Your task to perform on an android device: Open Wikipedia Image 0: 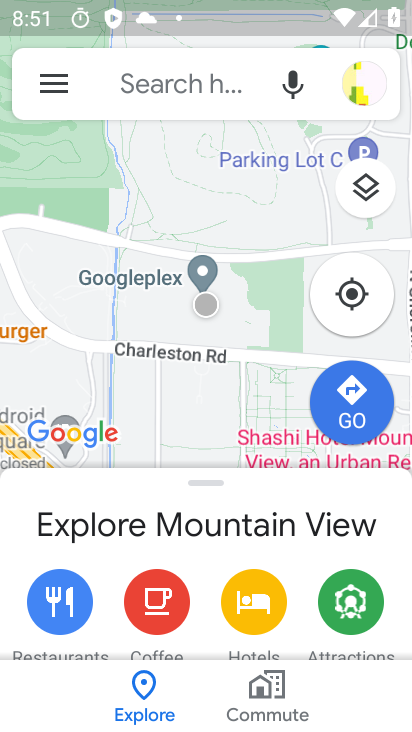
Step 0: press home button
Your task to perform on an android device: Open Wikipedia Image 1: 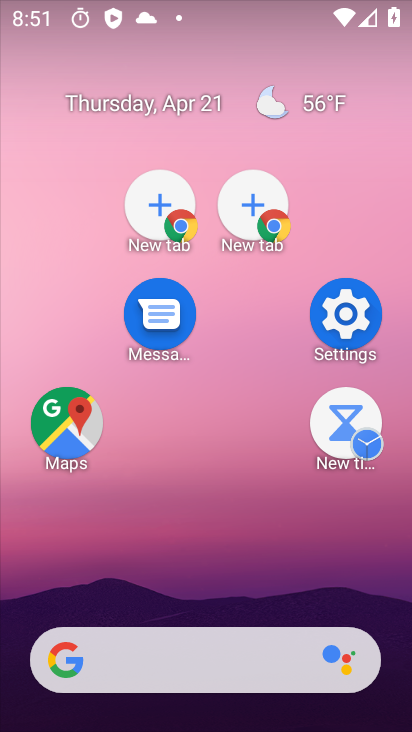
Step 1: drag from (245, 262) to (221, 81)
Your task to perform on an android device: Open Wikipedia Image 2: 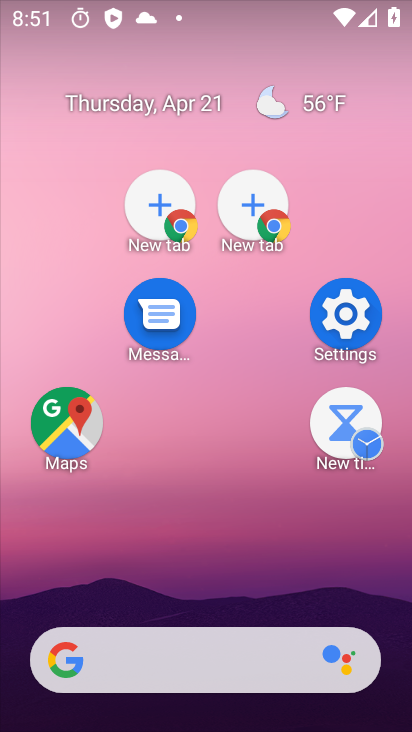
Step 2: drag from (289, 557) to (170, 24)
Your task to perform on an android device: Open Wikipedia Image 3: 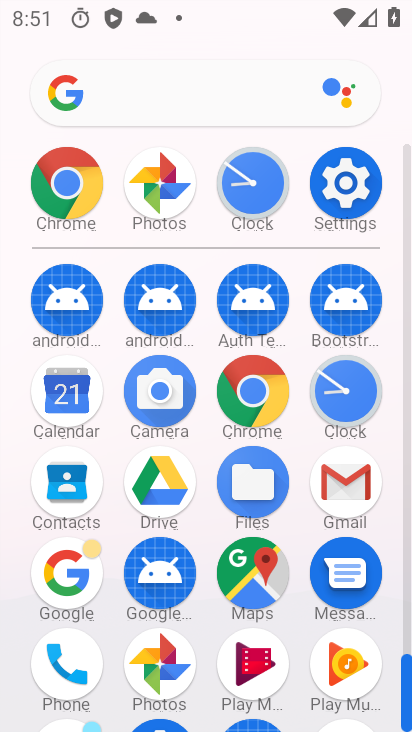
Step 3: click (73, 187)
Your task to perform on an android device: Open Wikipedia Image 4: 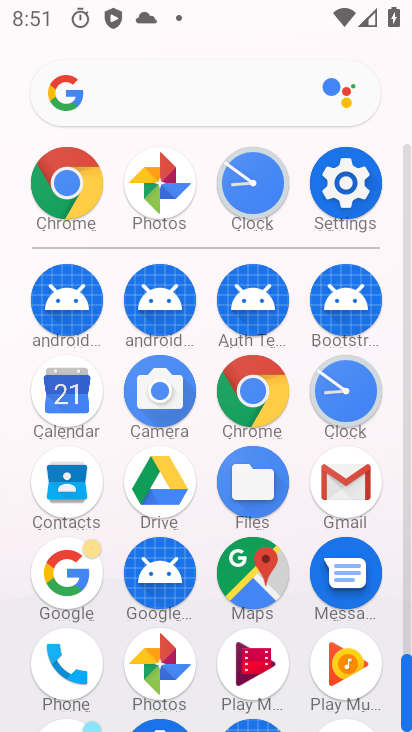
Step 4: click (65, 182)
Your task to perform on an android device: Open Wikipedia Image 5: 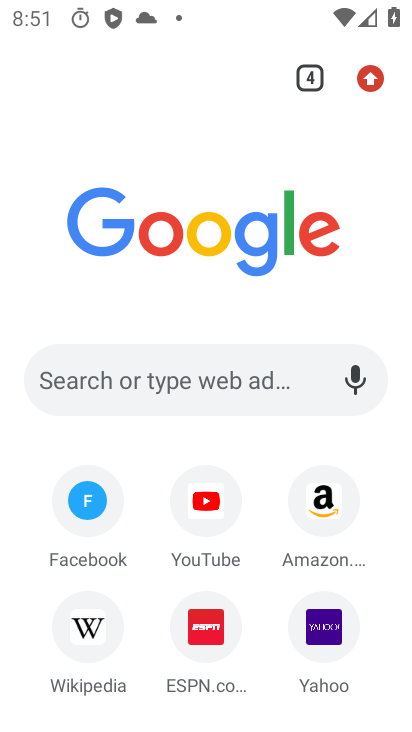
Step 5: drag from (88, 635) to (50, 614)
Your task to perform on an android device: Open Wikipedia Image 6: 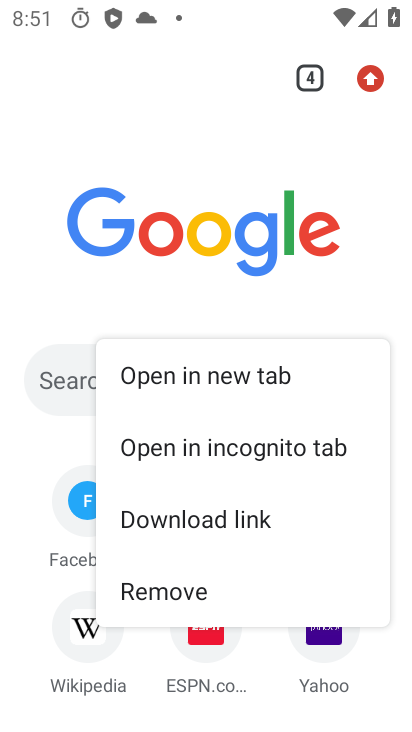
Step 6: click (80, 633)
Your task to perform on an android device: Open Wikipedia Image 7: 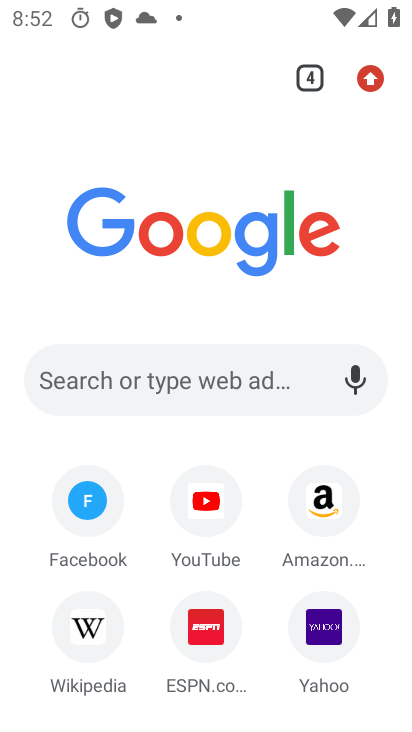
Step 7: click (80, 633)
Your task to perform on an android device: Open Wikipedia Image 8: 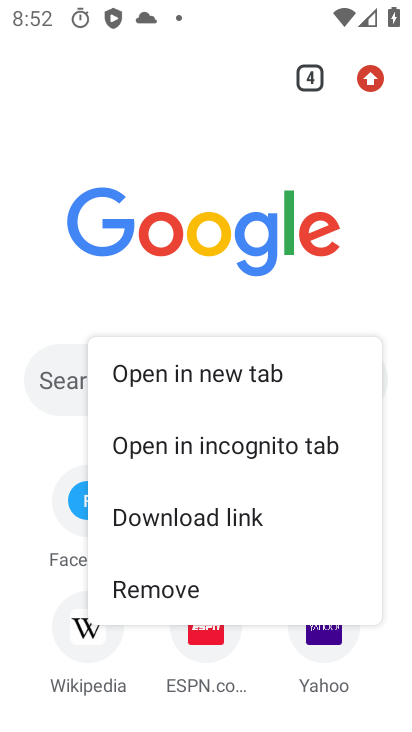
Step 8: click (80, 624)
Your task to perform on an android device: Open Wikipedia Image 9: 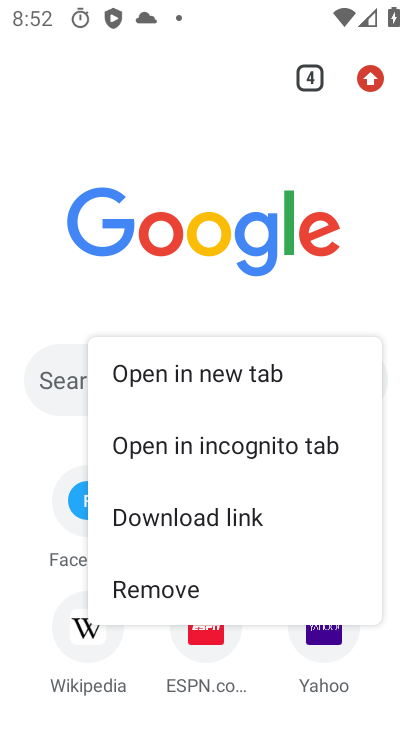
Step 9: click (80, 624)
Your task to perform on an android device: Open Wikipedia Image 10: 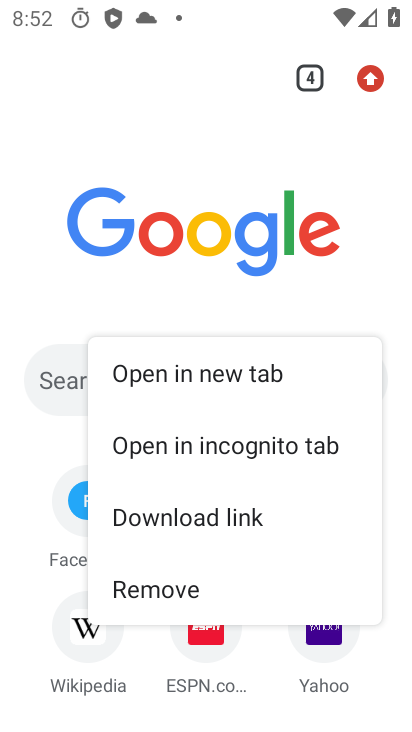
Step 10: click (80, 624)
Your task to perform on an android device: Open Wikipedia Image 11: 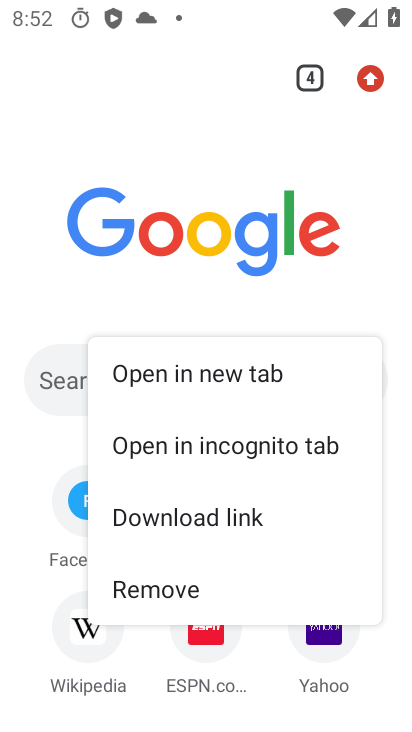
Step 11: click (79, 625)
Your task to perform on an android device: Open Wikipedia Image 12: 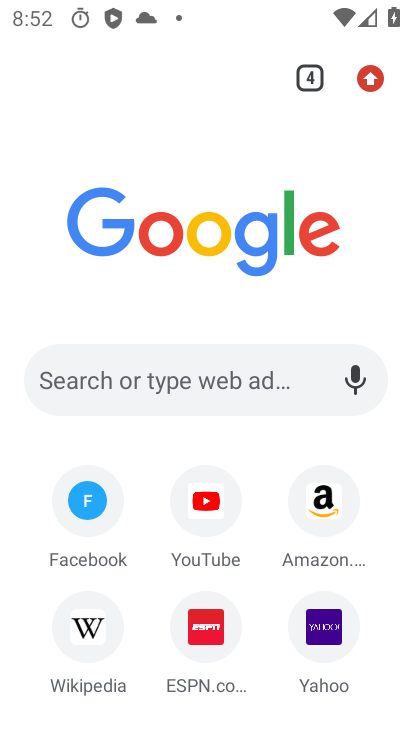
Step 12: click (85, 622)
Your task to perform on an android device: Open Wikipedia Image 13: 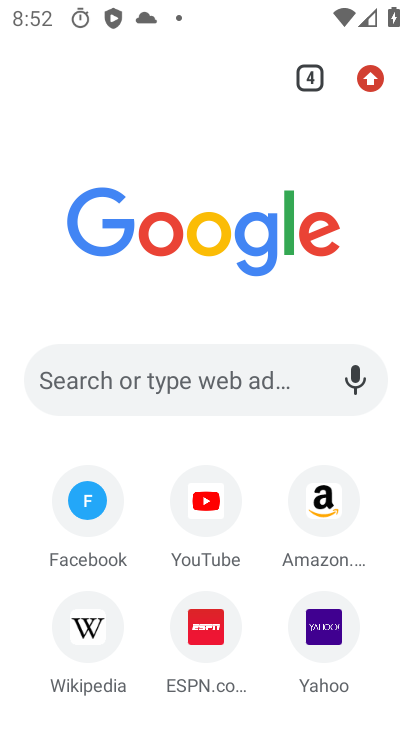
Step 13: click (85, 622)
Your task to perform on an android device: Open Wikipedia Image 14: 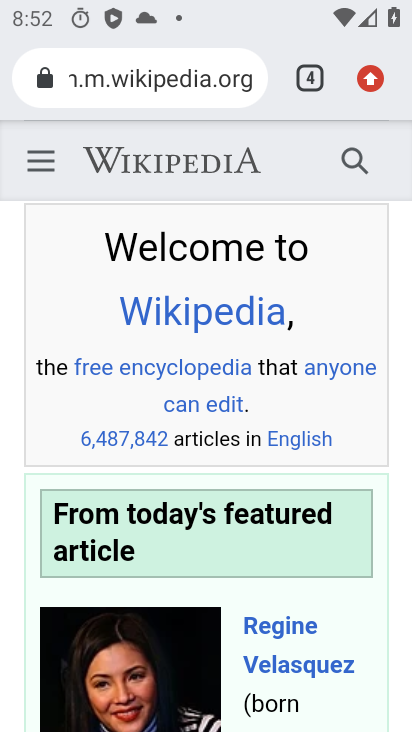
Step 14: task complete